Your task to perform on an android device: Open the calendar and show me this week's events Image 0: 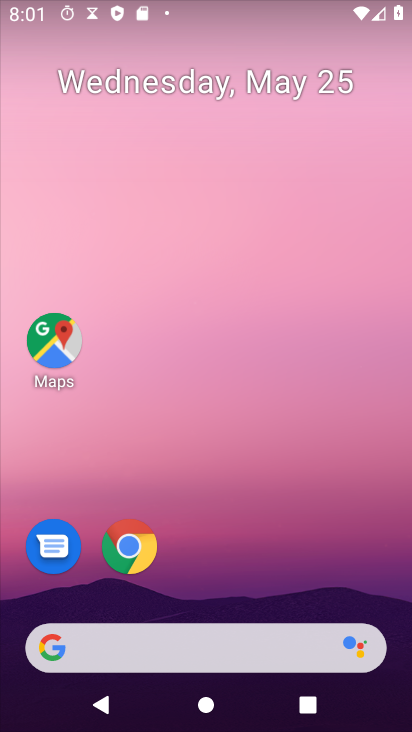
Step 0: drag from (237, 546) to (174, 4)
Your task to perform on an android device: Open the calendar and show me this week's events Image 1: 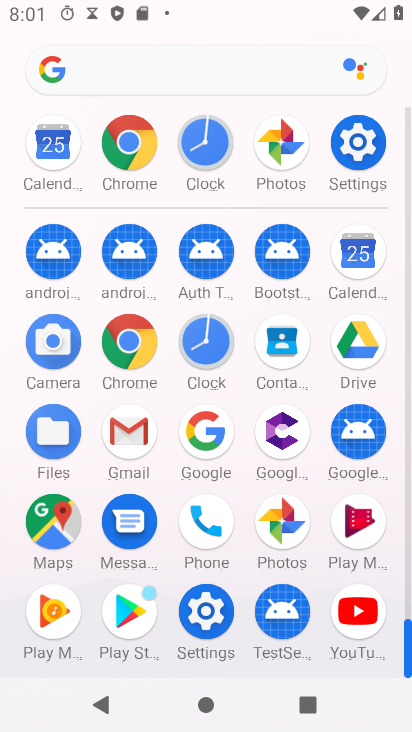
Step 1: click (343, 282)
Your task to perform on an android device: Open the calendar and show me this week's events Image 2: 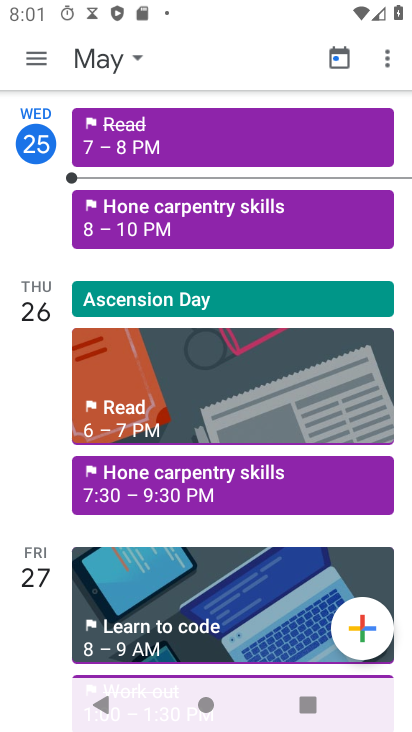
Step 2: click (50, 56)
Your task to perform on an android device: Open the calendar and show me this week's events Image 3: 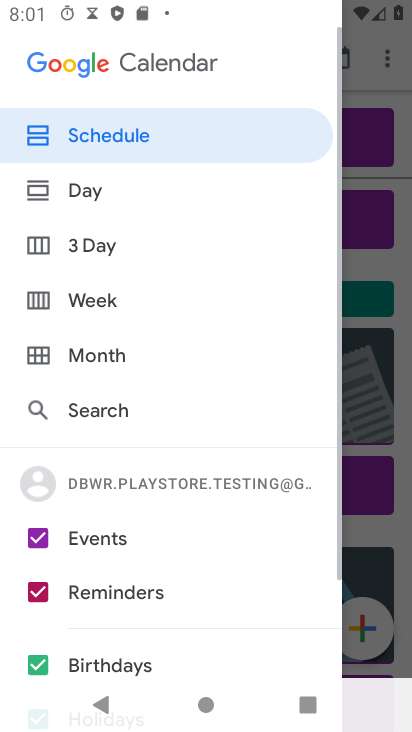
Step 3: click (125, 296)
Your task to perform on an android device: Open the calendar and show me this week's events Image 4: 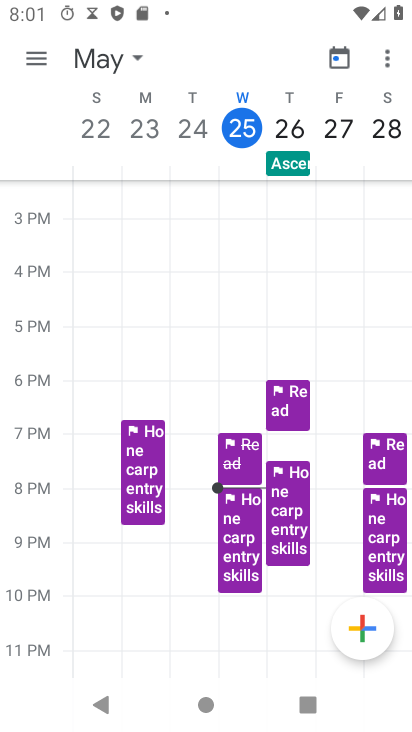
Step 4: task complete